Your task to perform on an android device: Open display settings Image 0: 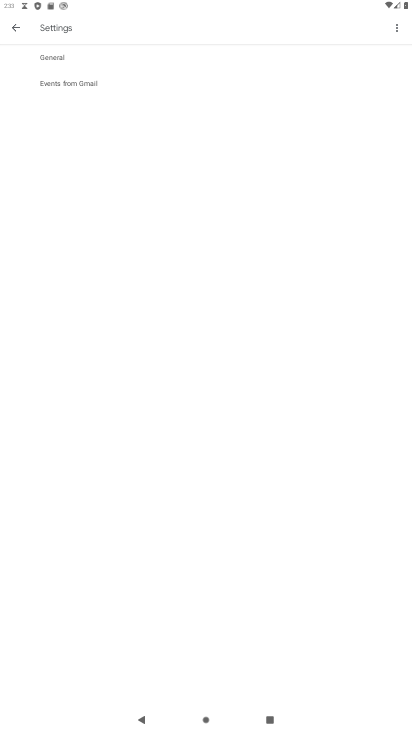
Step 0: press home button
Your task to perform on an android device: Open display settings Image 1: 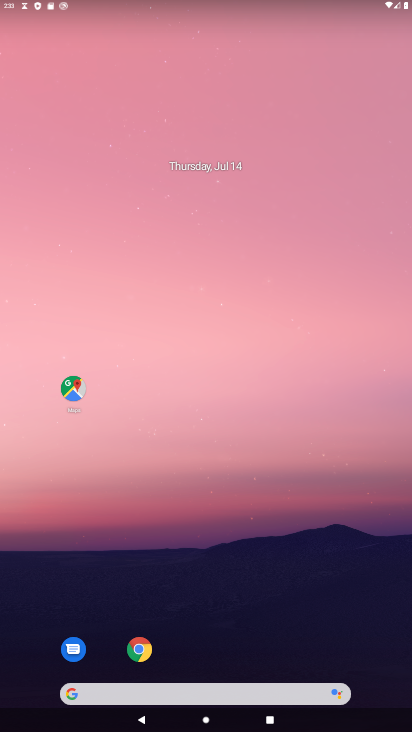
Step 1: drag from (38, 710) to (181, 281)
Your task to perform on an android device: Open display settings Image 2: 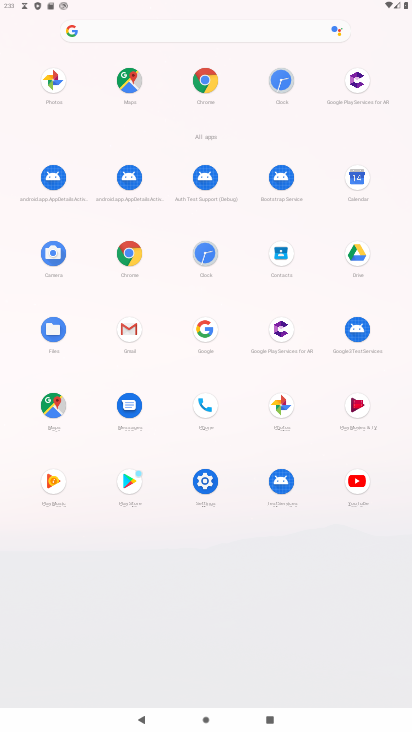
Step 2: click (205, 475)
Your task to perform on an android device: Open display settings Image 3: 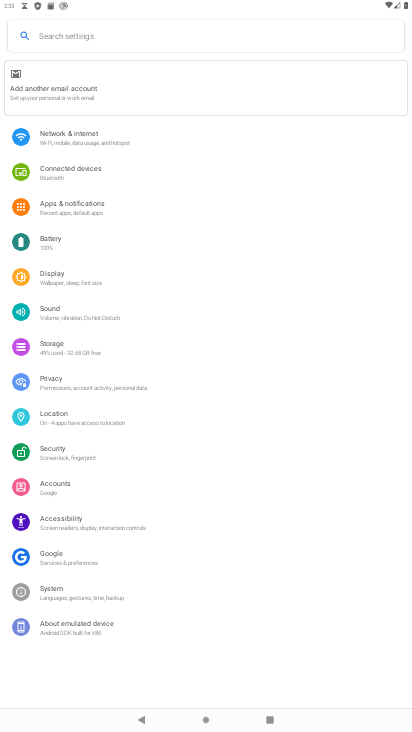
Step 3: click (46, 272)
Your task to perform on an android device: Open display settings Image 4: 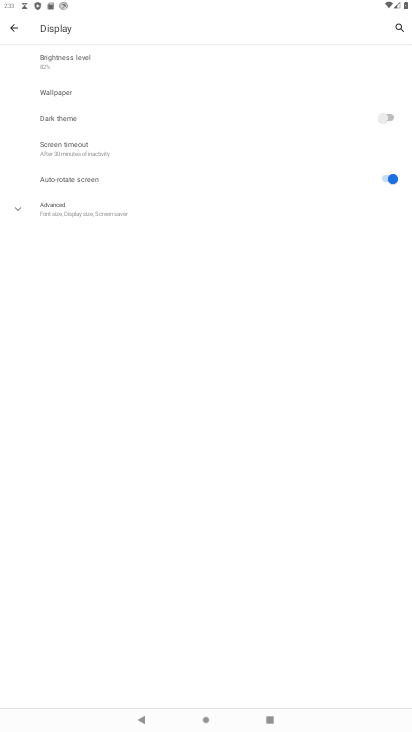
Step 4: task complete